Your task to perform on an android device: Search for Italian restaurants on Maps Image 0: 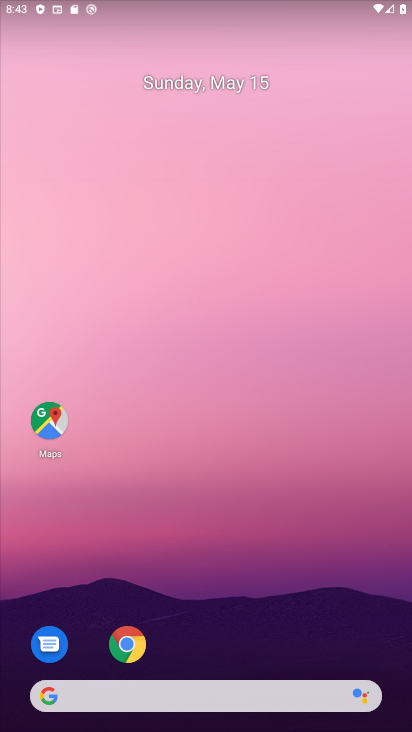
Step 0: click (59, 416)
Your task to perform on an android device: Search for Italian restaurants on Maps Image 1: 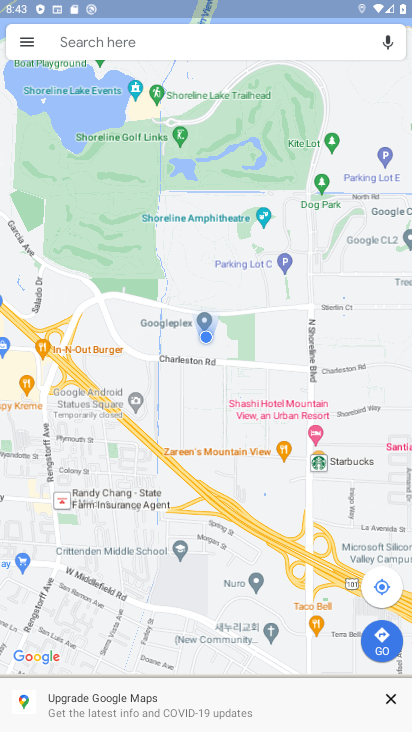
Step 1: click (151, 39)
Your task to perform on an android device: Search for Italian restaurants on Maps Image 2: 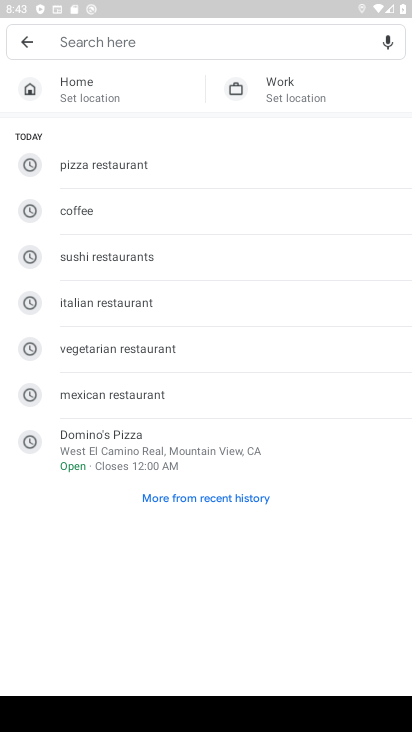
Step 2: click (107, 303)
Your task to perform on an android device: Search for Italian restaurants on Maps Image 3: 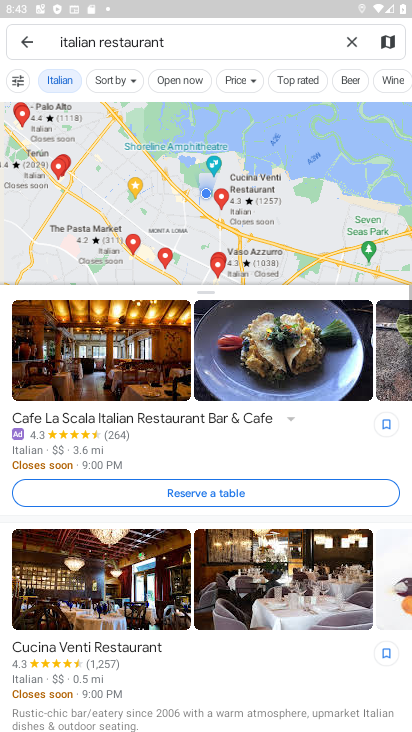
Step 3: task complete